Your task to perform on an android device: check android version Image 0: 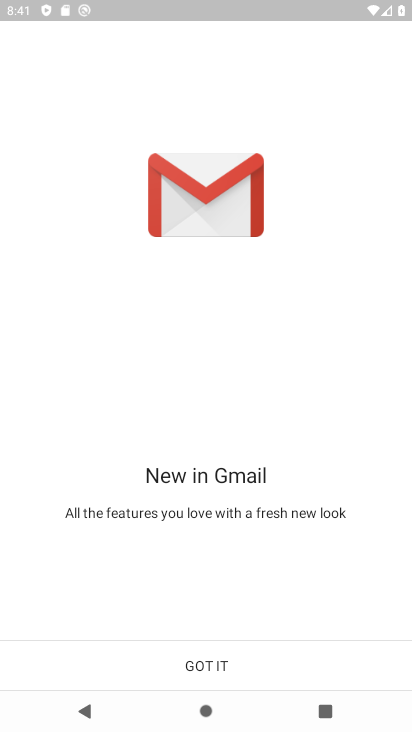
Step 0: press home button
Your task to perform on an android device: check android version Image 1: 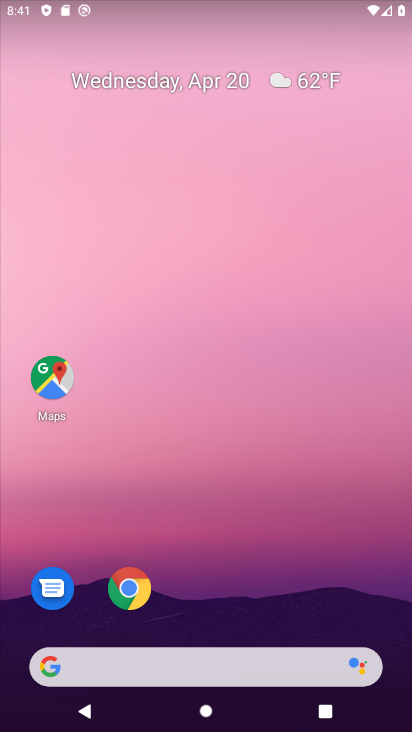
Step 1: drag from (219, 407) to (259, 28)
Your task to perform on an android device: check android version Image 2: 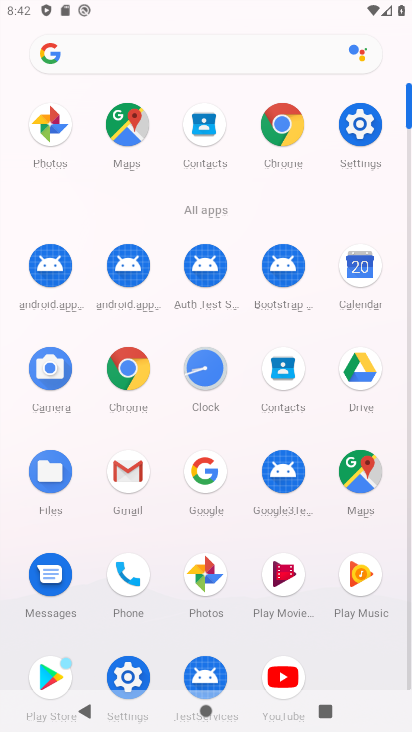
Step 2: click (359, 120)
Your task to perform on an android device: check android version Image 3: 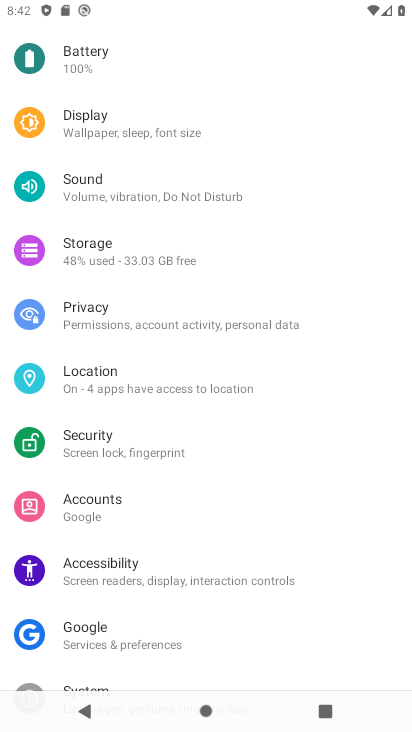
Step 3: drag from (154, 619) to (147, 127)
Your task to perform on an android device: check android version Image 4: 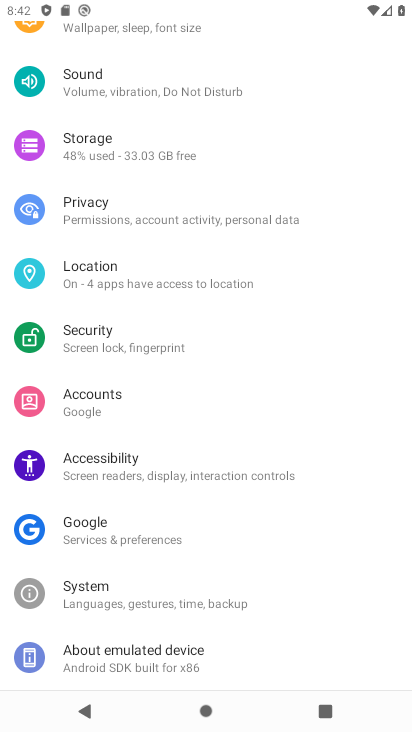
Step 4: click (151, 657)
Your task to perform on an android device: check android version Image 5: 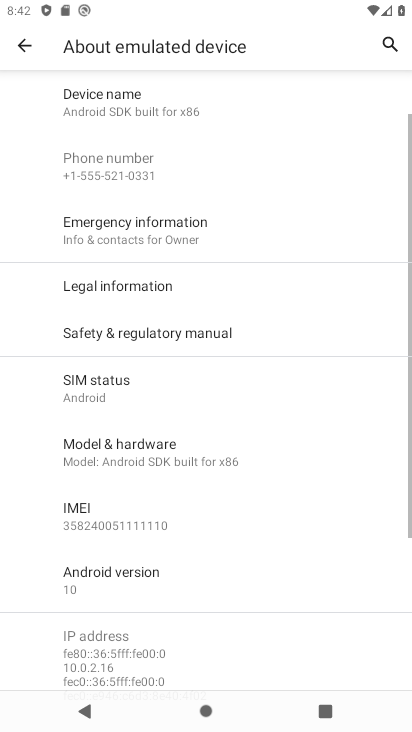
Step 5: click (140, 593)
Your task to perform on an android device: check android version Image 6: 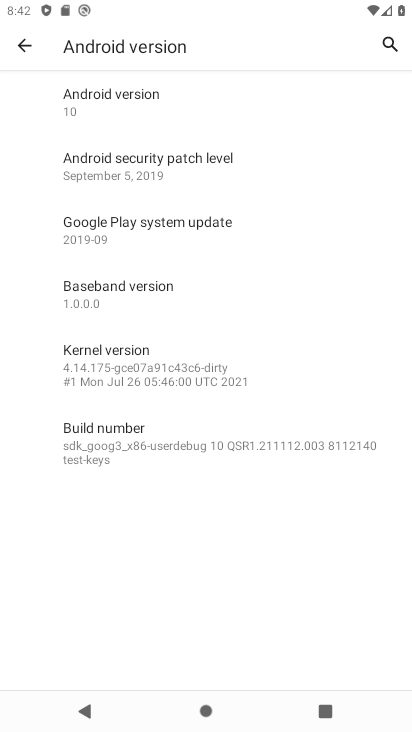
Step 6: click (104, 106)
Your task to perform on an android device: check android version Image 7: 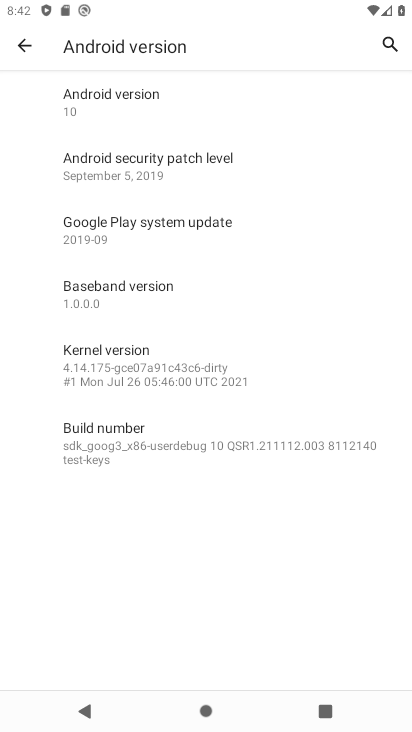
Step 7: task complete